Your task to perform on an android device: change the clock display to show seconds Image 0: 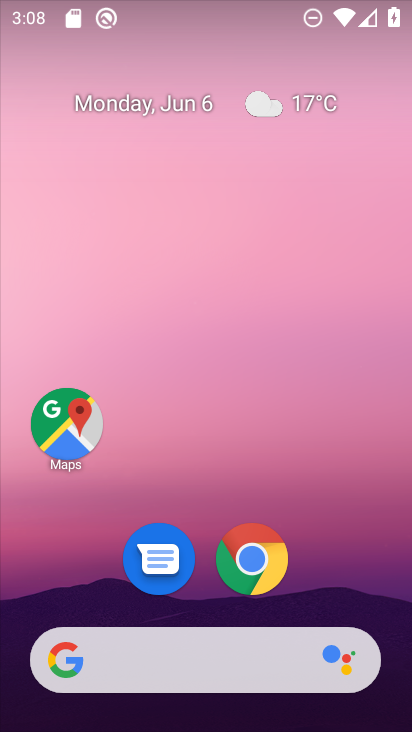
Step 0: drag from (381, 598) to (291, 137)
Your task to perform on an android device: change the clock display to show seconds Image 1: 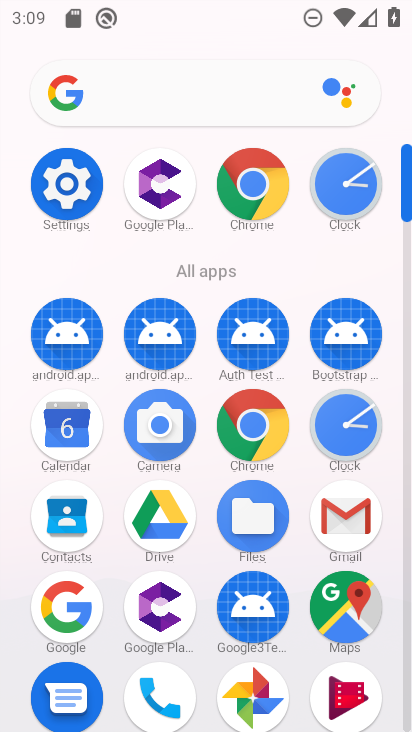
Step 1: click (362, 437)
Your task to perform on an android device: change the clock display to show seconds Image 2: 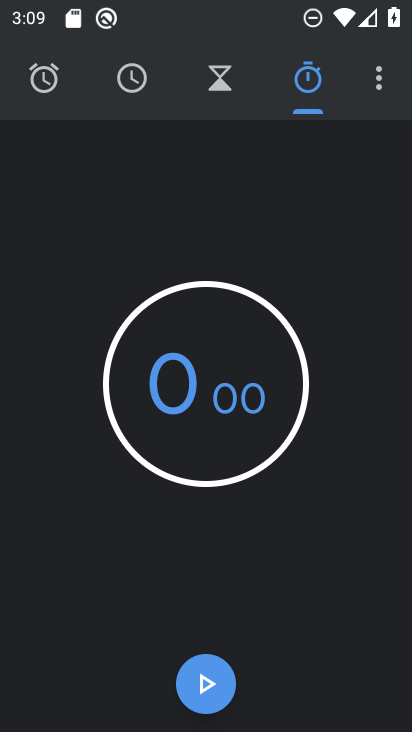
Step 2: click (370, 104)
Your task to perform on an android device: change the clock display to show seconds Image 3: 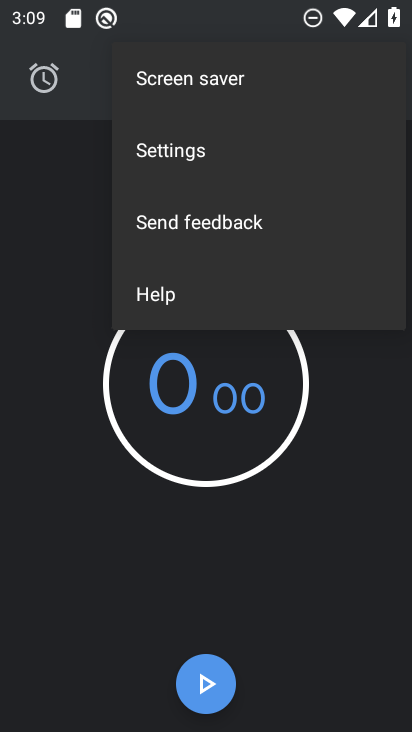
Step 3: click (290, 134)
Your task to perform on an android device: change the clock display to show seconds Image 4: 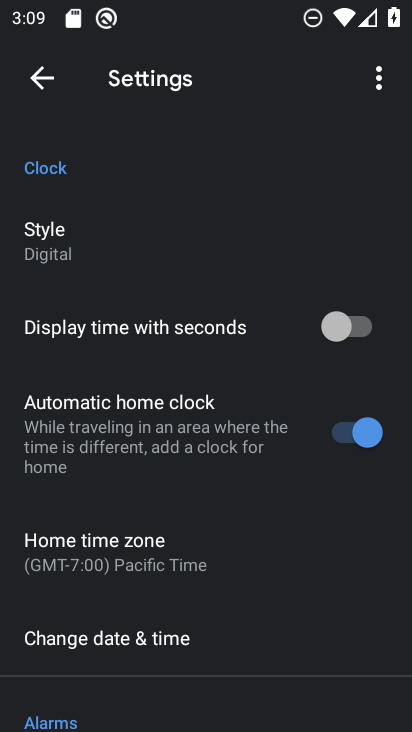
Step 4: click (350, 343)
Your task to perform on an android device: change the clock display to show seconds Image 5: 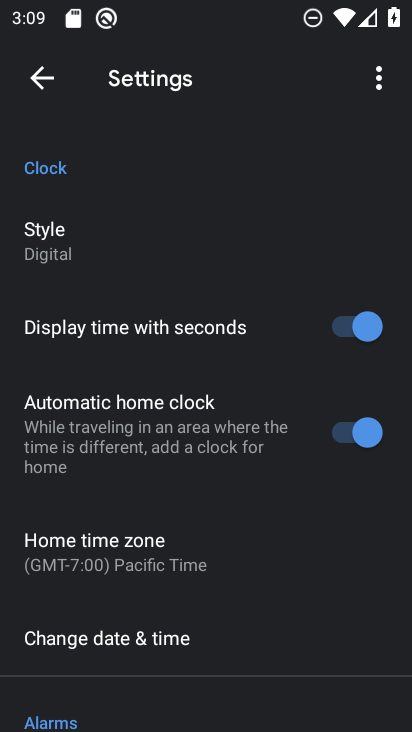
Step 5: task complete